Your task to perform on an android device: uninstall "Adobe Acrobat Reader: Edit PDF" Image 0: 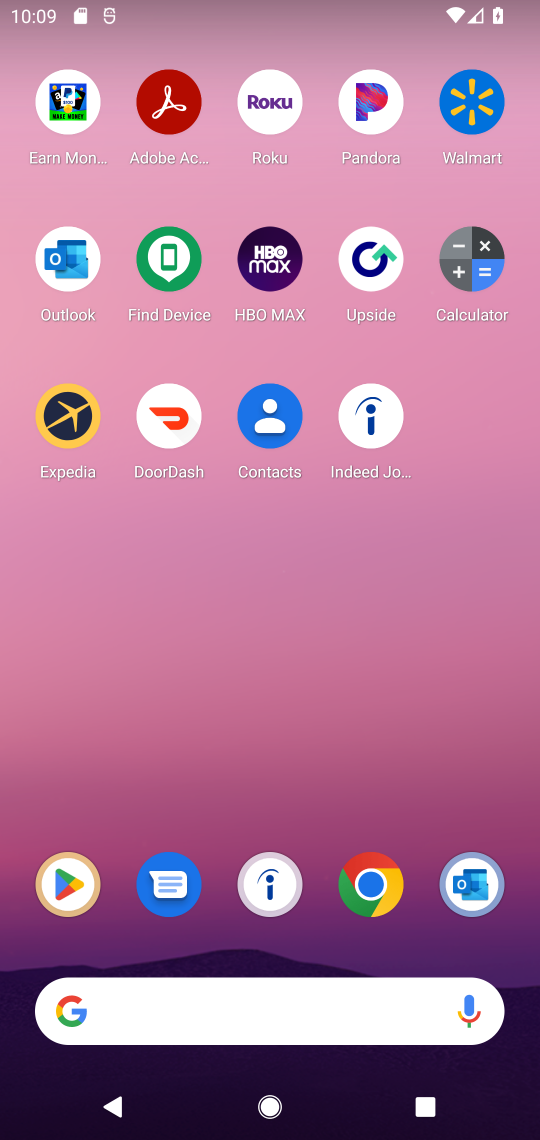
Step 0: click (85, 882)
Your task to perform on an android device: uninstall "Adobe Acrobat Reader: Edit PDF" Image 1: 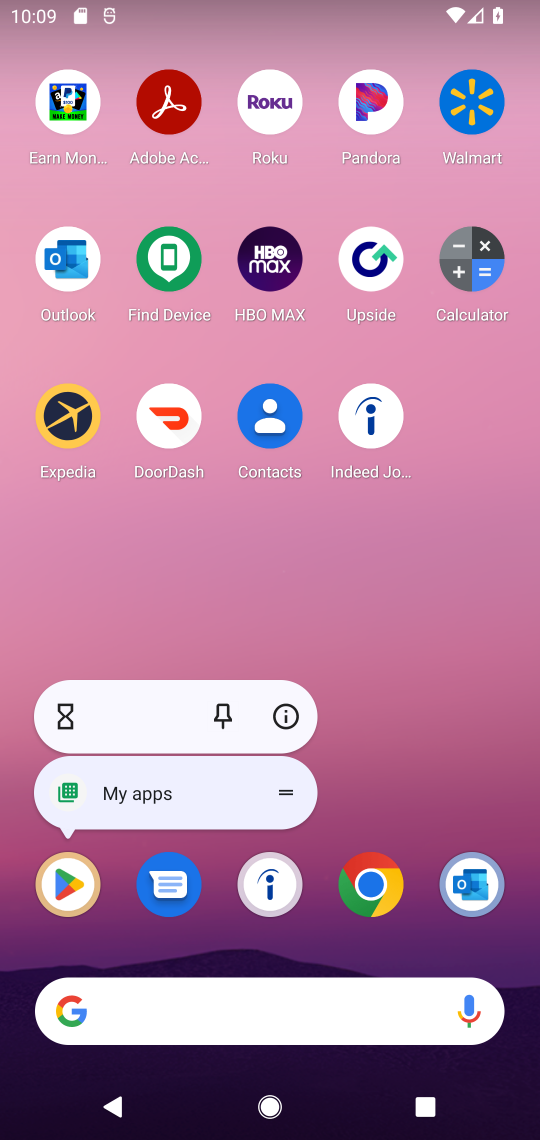
Step 1: click (90, 897)
Your task to perform on an android device: uninstall "Adobe Acrobat Reader: Edit PDF" Image 2: 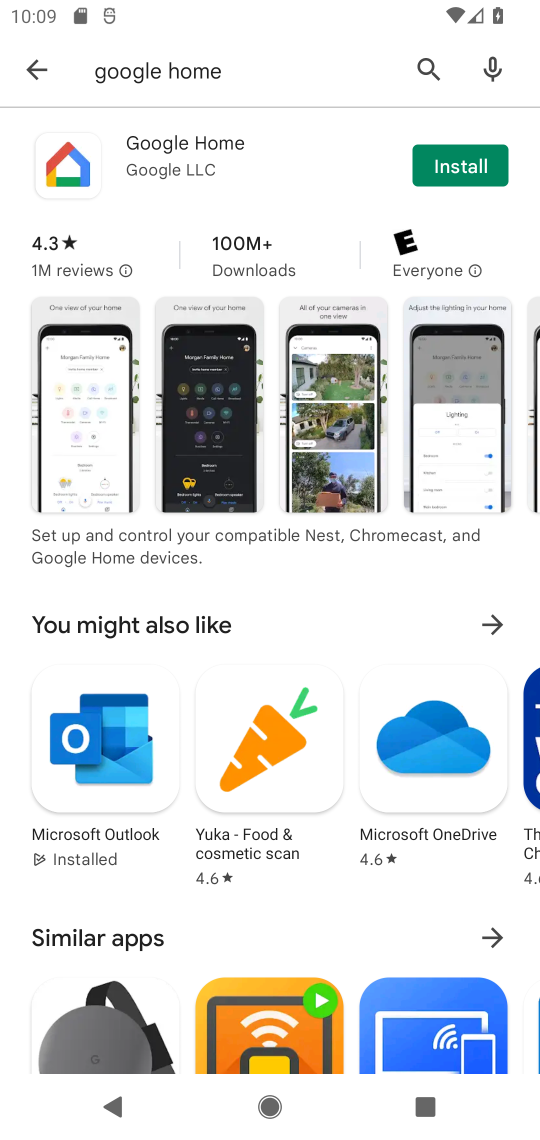
Step 2: click (240, 65)
Your task to perform on an android device: uninstall "Adobe Acrobat Reader: Edit PDF" Image 3: 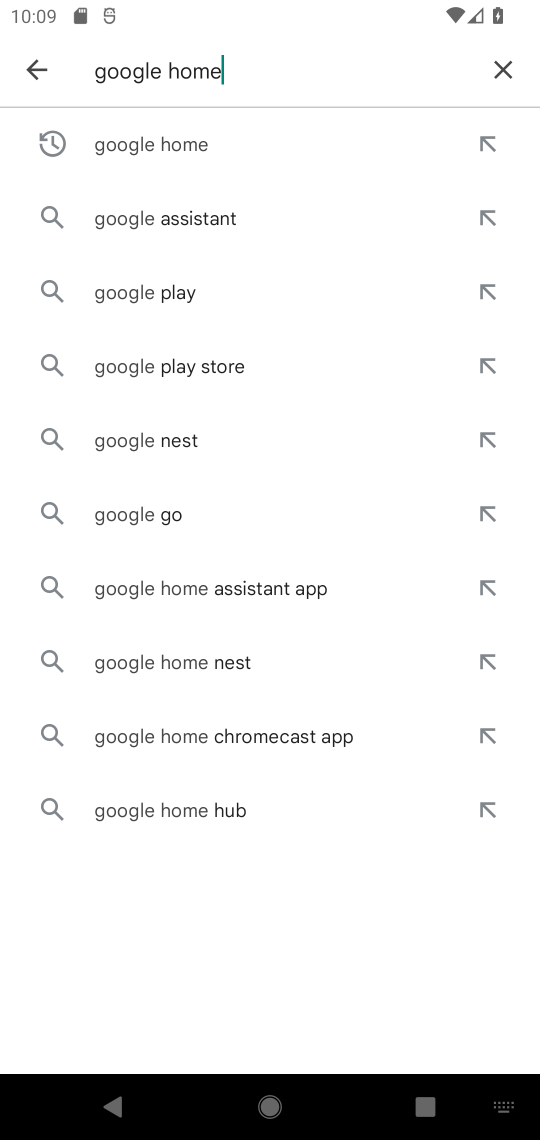
Step 3: click (500, 64)
Your task to perform on an android device: uninstall "Adobe Acrobat Reader: Edit PDF" Image 4: 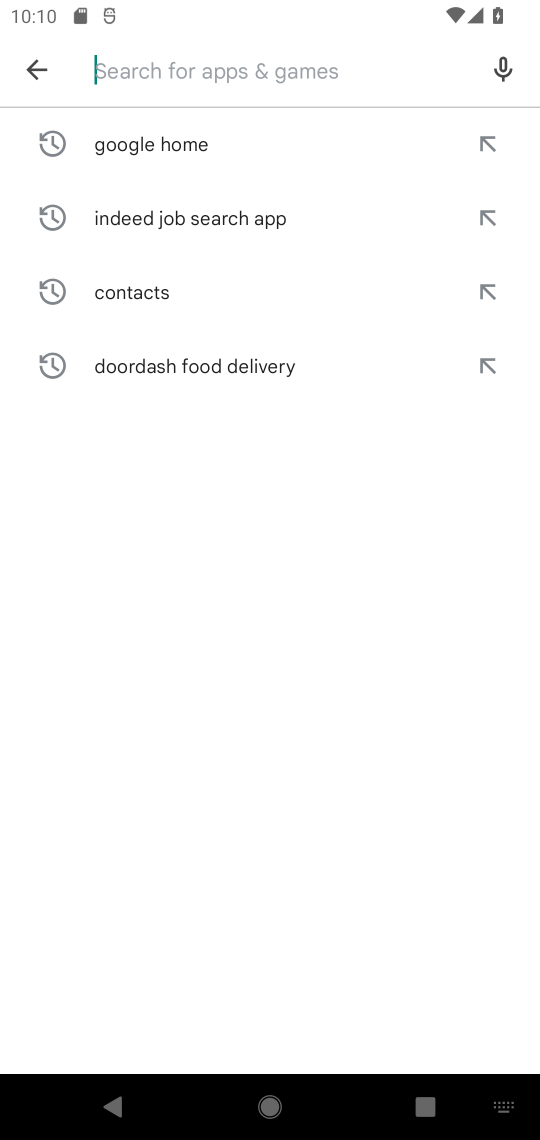
Step 4: type "Adobe Acrobat reader"
Your task to perform on an android device: uninstall "Adobe Acrobat Reader: Edit PDF" Image 5: 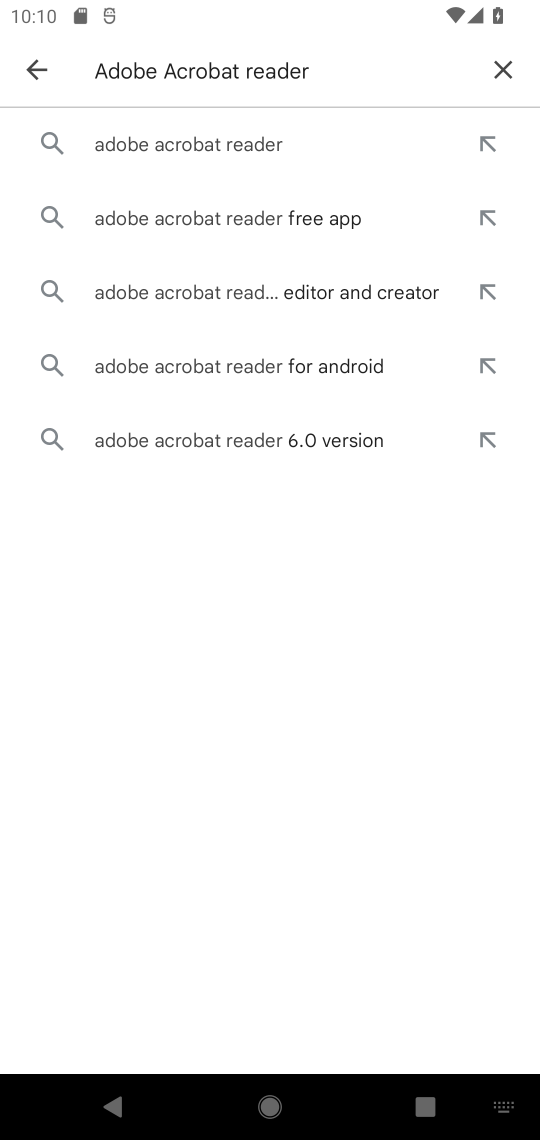
Step 5: click (172, 161)
Your task to perform on an android device: uninstall "Adobe Acrobat Reader: Edit PDF" Image 6: 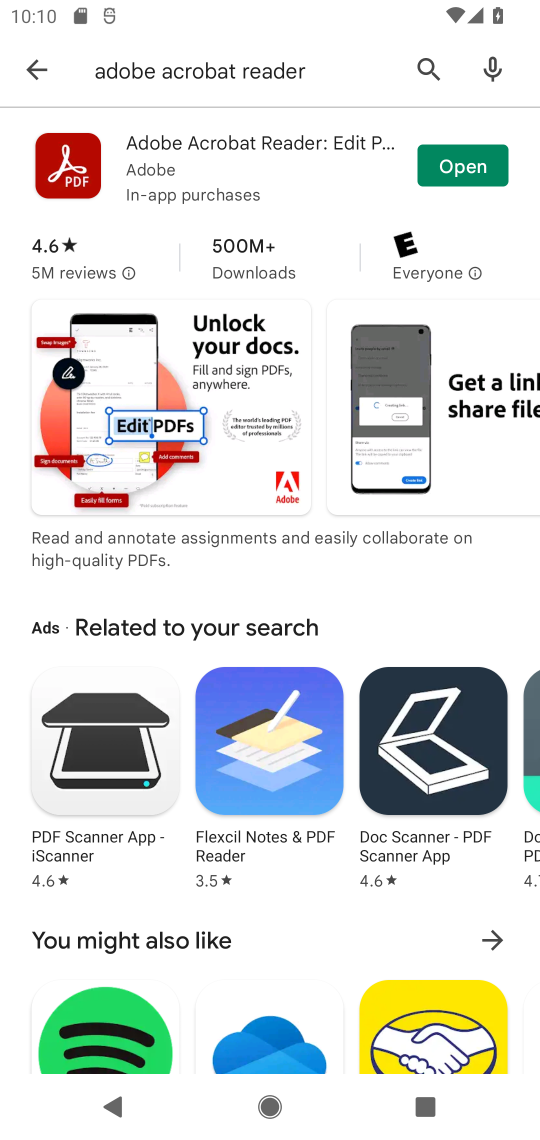
Step 6: click (62, 158)
Your task to perform on an android device: uninstall "Adobe Acrobat Reader: Edit PDF" Image 7: 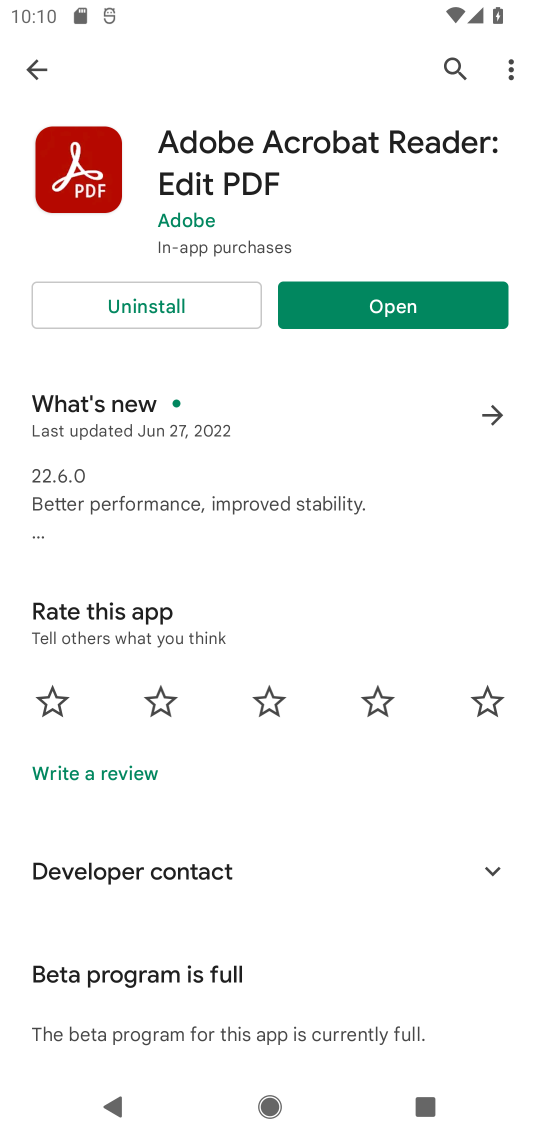
Step 7: click (202, 302)
Your task to perform on an android device: uninstall "Adobe Acrobat Reader: Edit PDF" Image 8: 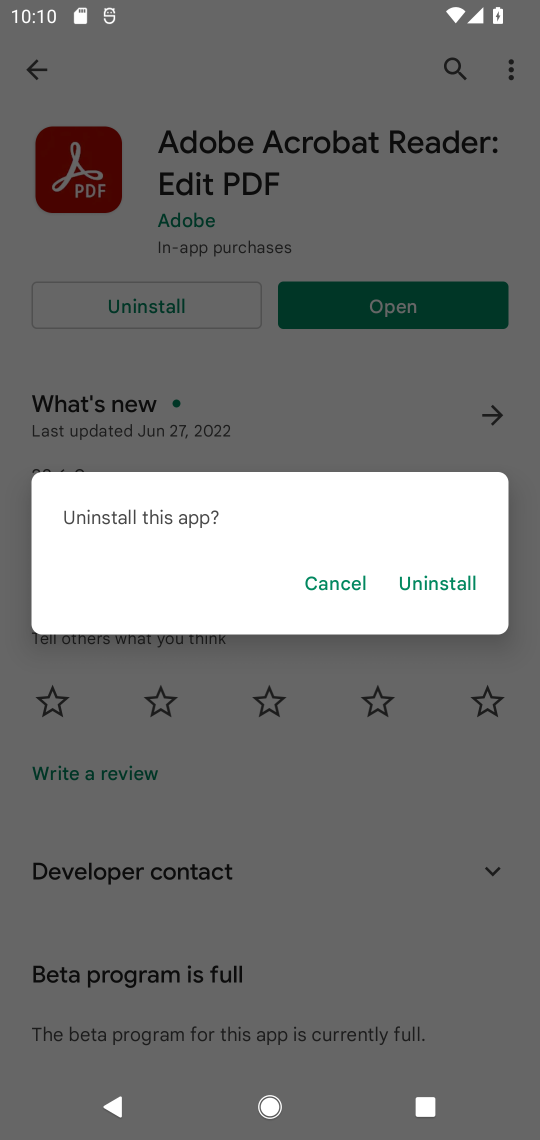
Step 8: click (449, 589)
Your task to perform on an android device: uninstall "Adobe Acrobat Reader: Edit PDF" Image 9: 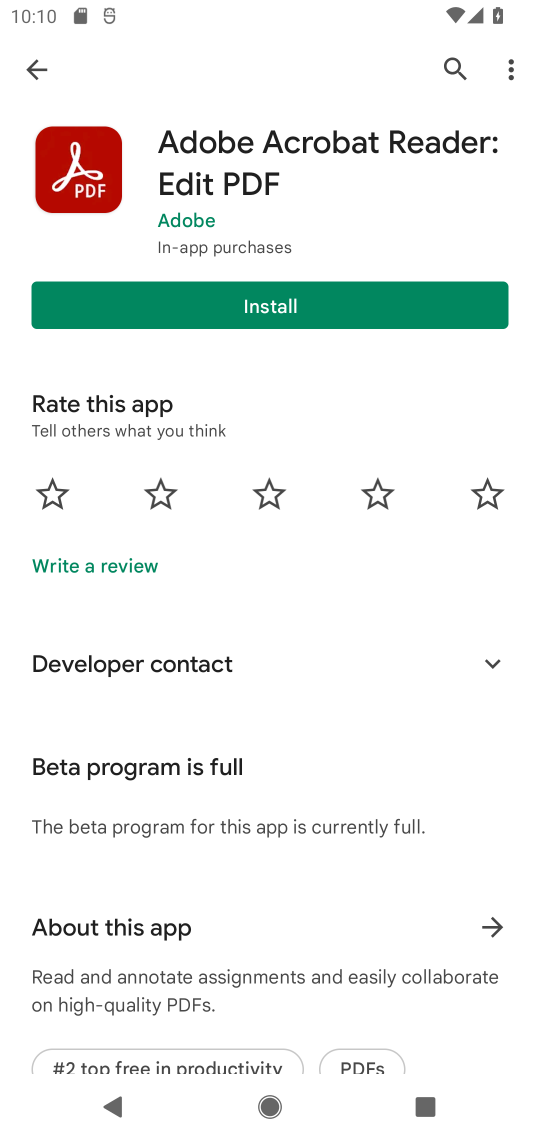
Step 9: task complete